Your task to perform on an android device: Open Android settings Image 0: 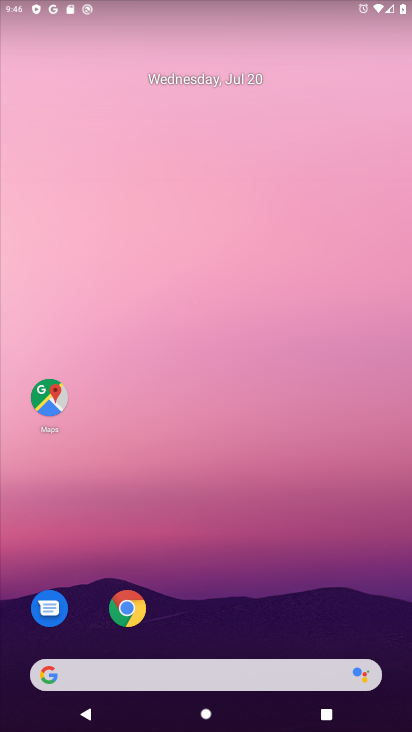
Step 0: press home button
Your task to perform on an android device: Open Android settings Image 1: 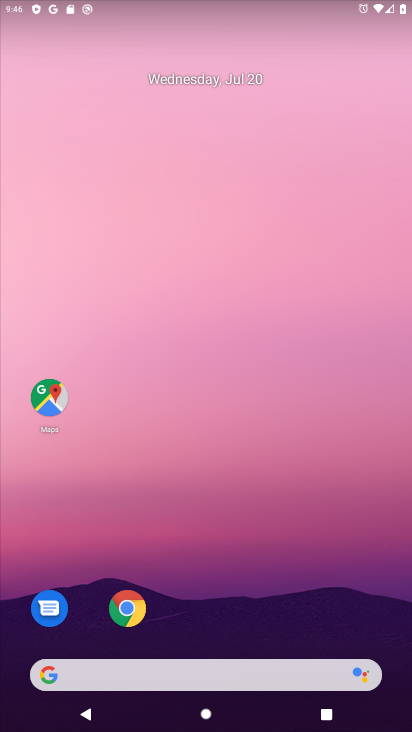
Step 1: drag from (204, 635) to (256, 8)
Your task to perform on an android device: Open Android settings Image 2: 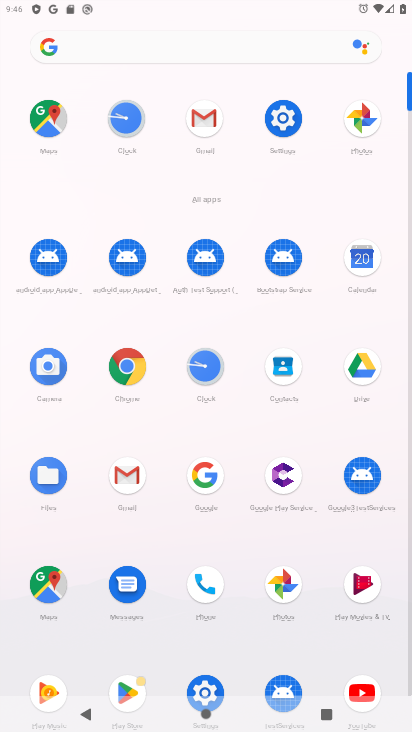
Step 2: click (280, 109)
Your task to perform on an android device: Open Android settings Image 3: 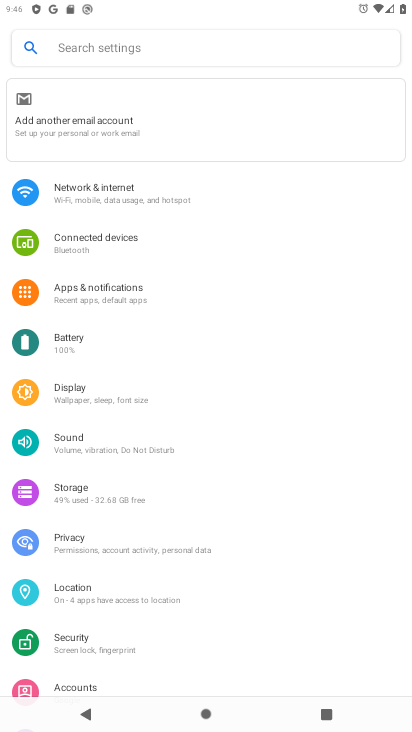
Step 3: drag from (149, 644) to (180, 96)
Your task to perform on an android device: Open Android settings Image 4: 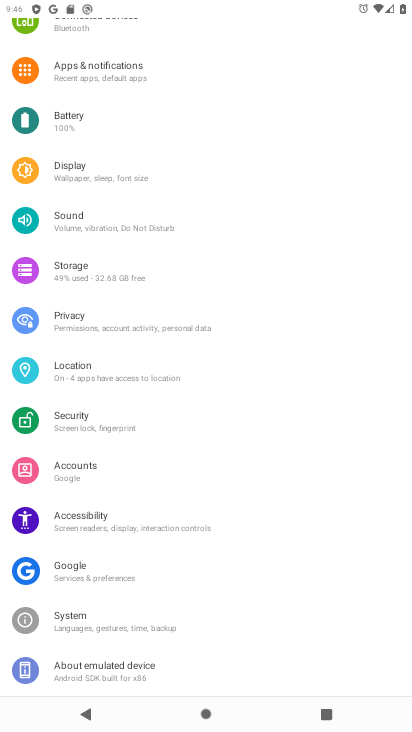
Step 4: click (168, 670)
Your task to perform on an android device: Open Android settings Image 5: 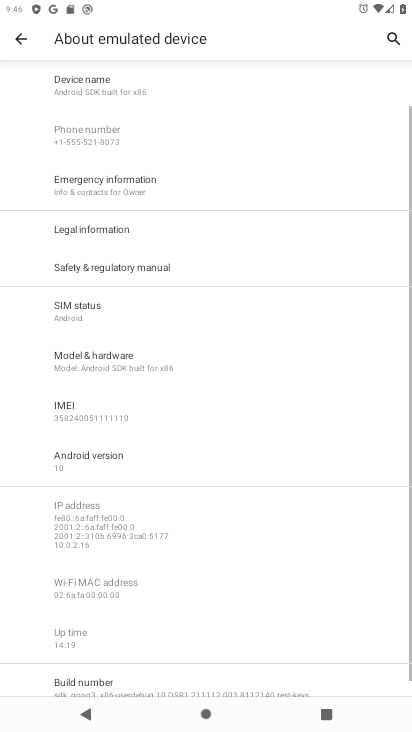
Step 5: click (105, 460)
Your task to perform on an android device: Open Android settings Image 6: 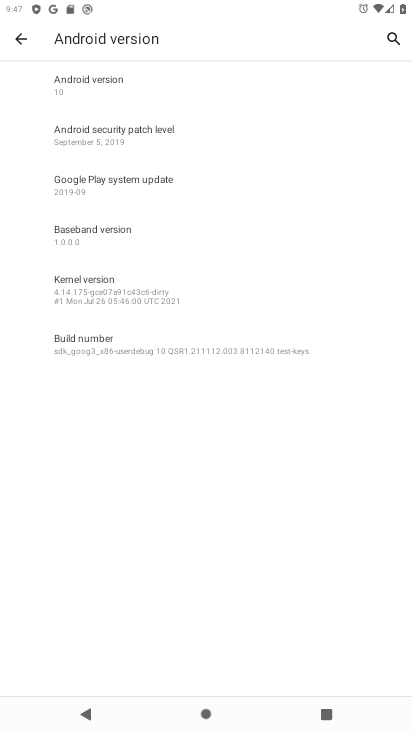
Step 6: task complete